Your task to perform on an android device: Open accessibility settings Image 0: 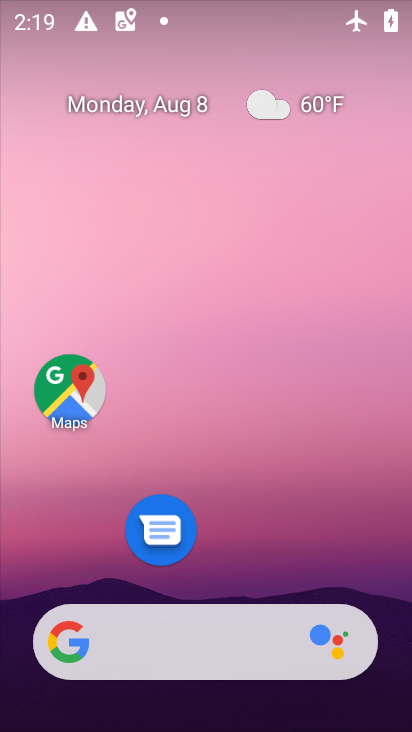
Step 0: drag from (227, 348) to (240, 9)
Your task to perform on an android device: Open accessibility settings Image 1: 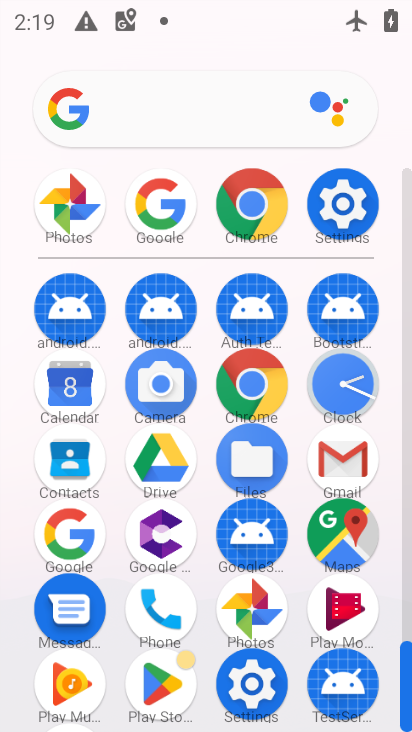
Step 1: click (352, 204)
Your task to perform on an android device: Open accessibility settings Image 2: 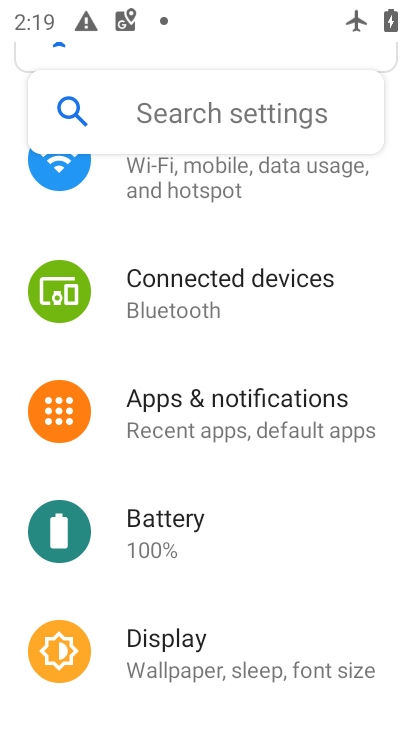
Step 2: drag from (173, 567) to (176, 214)
Your task to perform on an android device: Open accessibility settings Image 3: 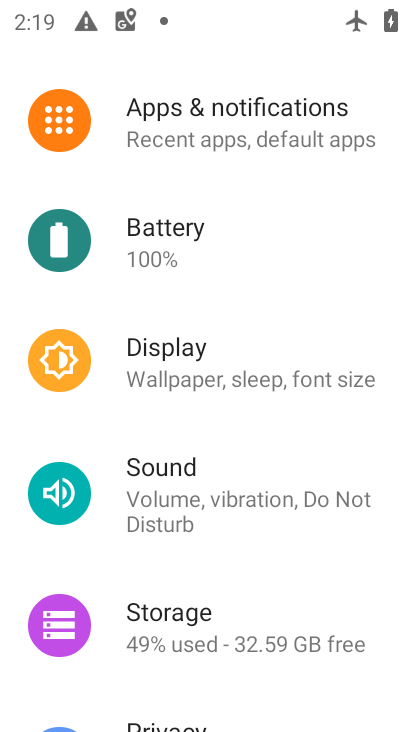
Step 3: drag from (179, 508) to (179, 232)
Your task to perform on an android device: Open accessibility settings Image 4: 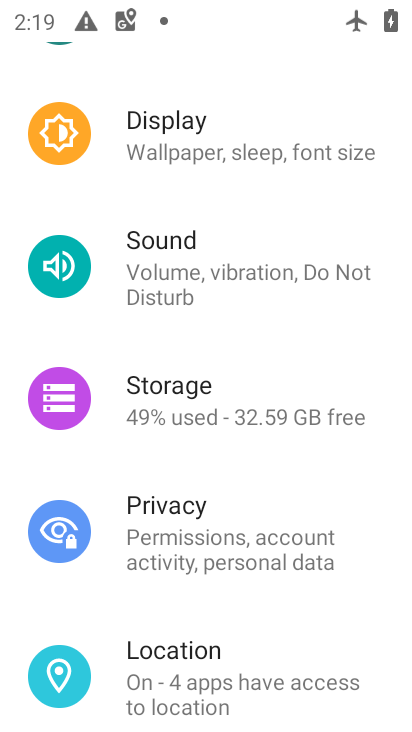
Step 4: drag from (203, 657) to (186, 267)
Your task to perform on an android device: Open accessibility settings Image 5: 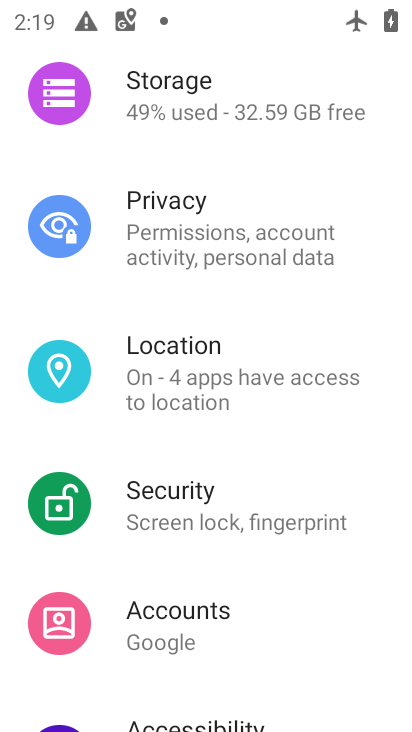
Step 5: drag from (186, 508) to (187, 225)
Your task to perform on an android device: Open accessibility settings Image 6: 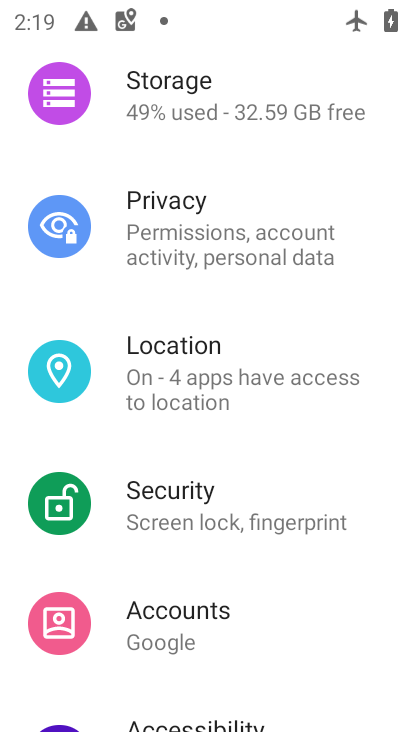
Step 6: drag from (181, 330) to (176, 249)
Your task to perform on an android device: Open accessibility settings Image 7: 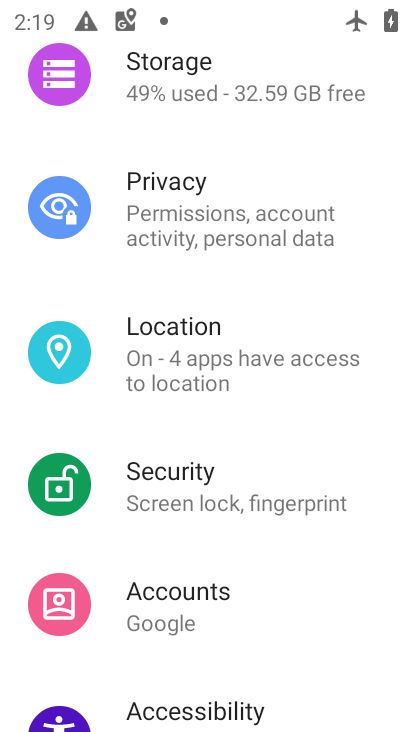
Step 7: click (181, 709)
Your task to perform on an android device: Open accessibility settings Image 8: 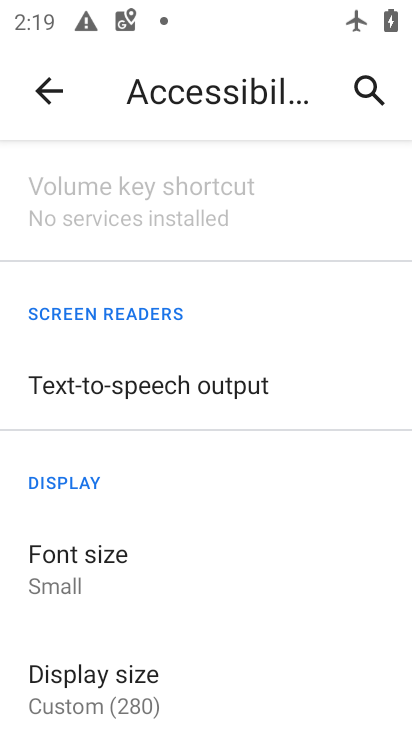
Step 8: task complete